Your task to perform on an android device: stop showing notifications on the lock screen Image 0: 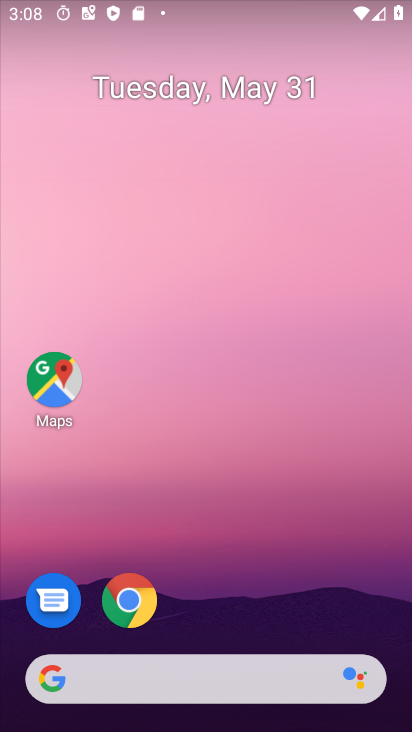
Step 0: drag from (206, 634) to (232, 43)
Your task to perform on an android device: stop showing notifications on the lock screen Image 1: 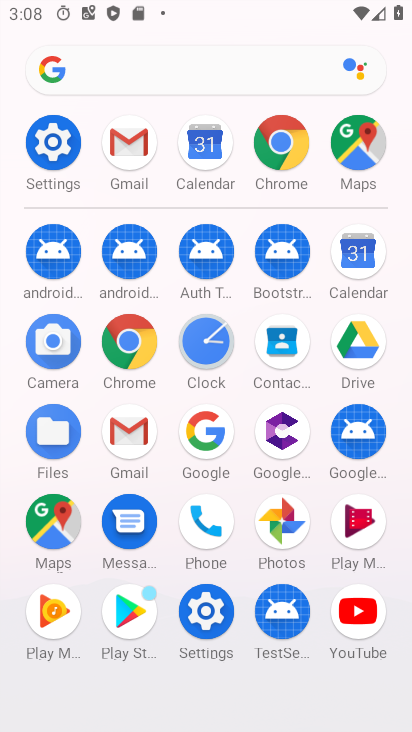
Step 1: click (212, 611)
Your task to perform on an android device: stop showing notifications on the lock screen Image 2: 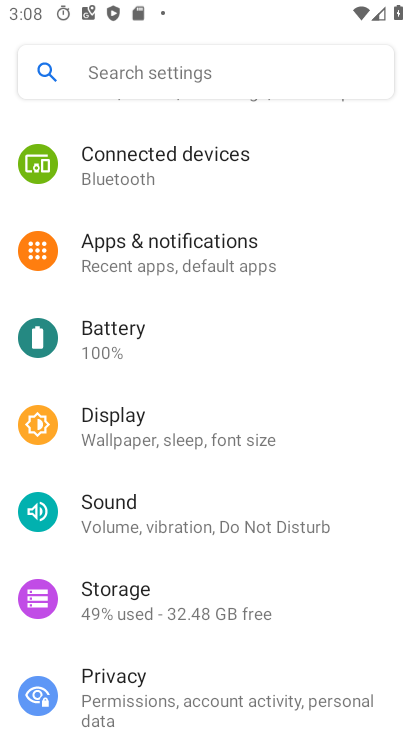
Step 2: click (147, 256)
Your task to perform on an android device: stop showing notifications on the lock screen Image 3: 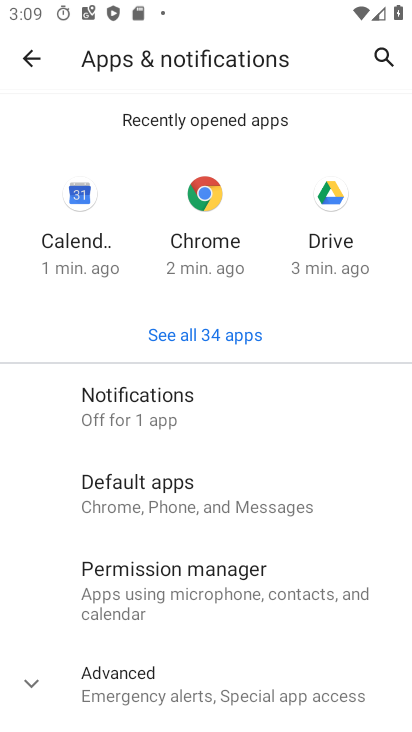
Step 3: click (200, 410)
Your task to perform on an android device: stop showing notifications on the lock screen Image 4: 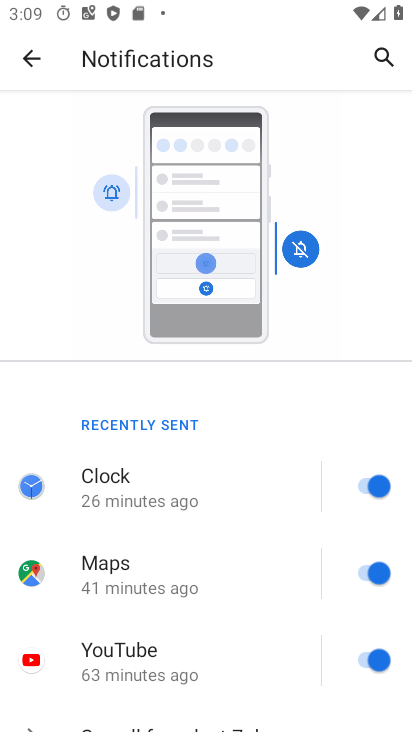
Step 4: drag from (224, 685) to (251, 206)
Your task to perform on an android device: stop showing notifications on the lock screen Image 5: 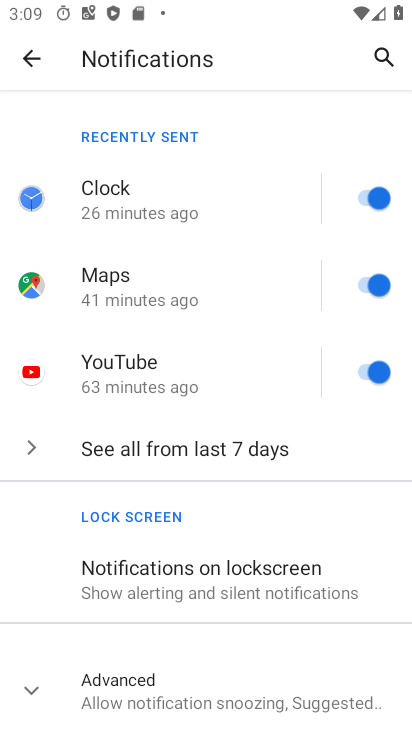
Step 5: click (233, 570)
Your task to perform on an android device: stop showing notifications on the lock screen Image 6: 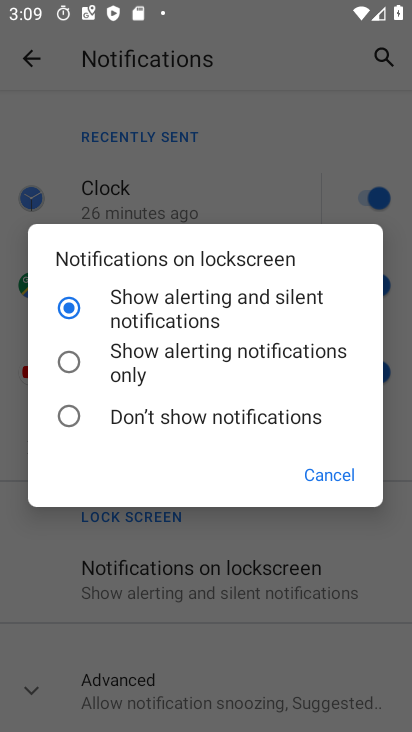
Step 6: click (63, 419)
Your task to perform on an android device: stop showing notifications on the lock screen Image 7: 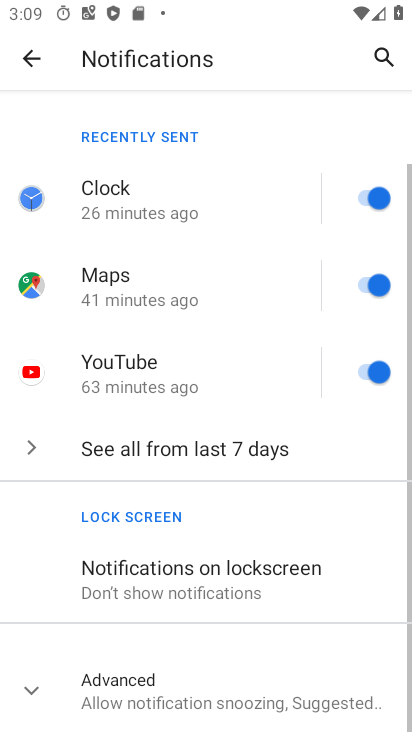
Step 7: task complete